Your task to perform on an android device: read, delete, or share a saved page in the chrome app Image 0: 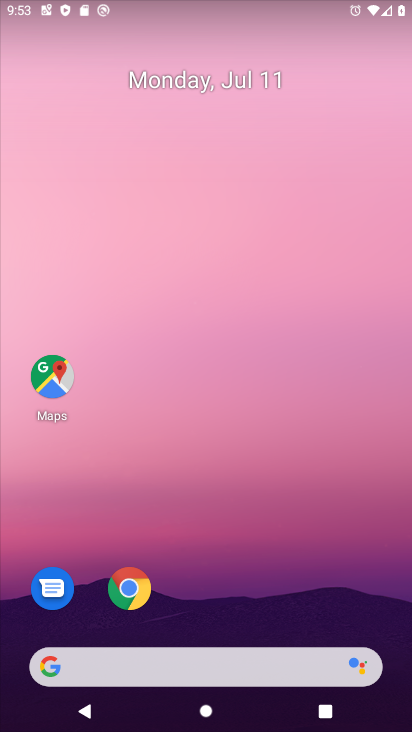
Step 0: click (122, 580)
Your task to perform on an android device: read, delete, or share a saved page in the chrome app Image 1: 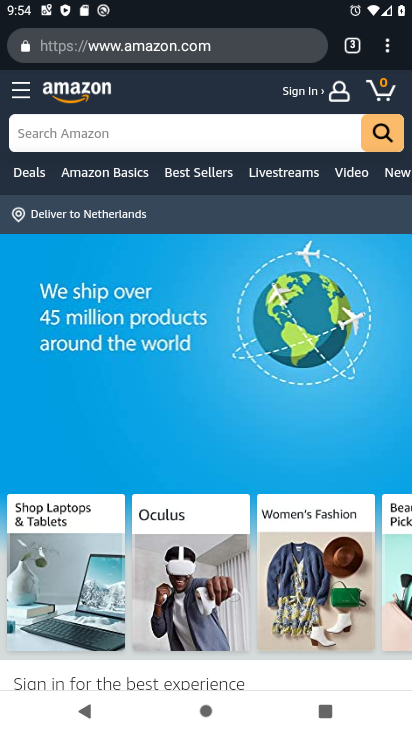
Step 1: drag from (385, 41) to (227, 291)
Your task to perform on an android device: read, delete, or share a saved page in the chrome app Image 2: 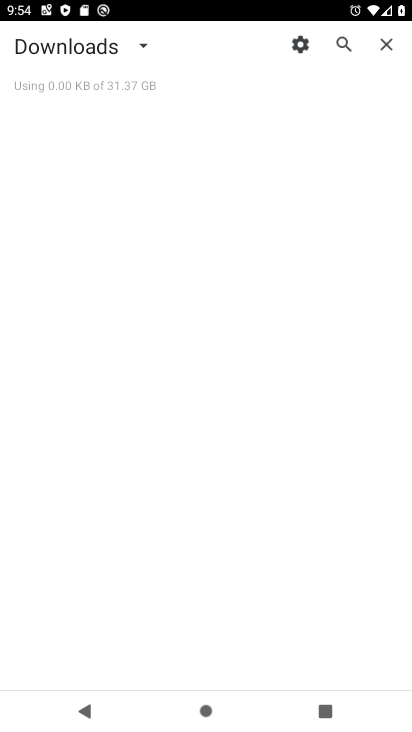
Step 2: click (140, 45)
Your task to perform on an android device: read, delete, or share a saved page in the chrome app Image 3: 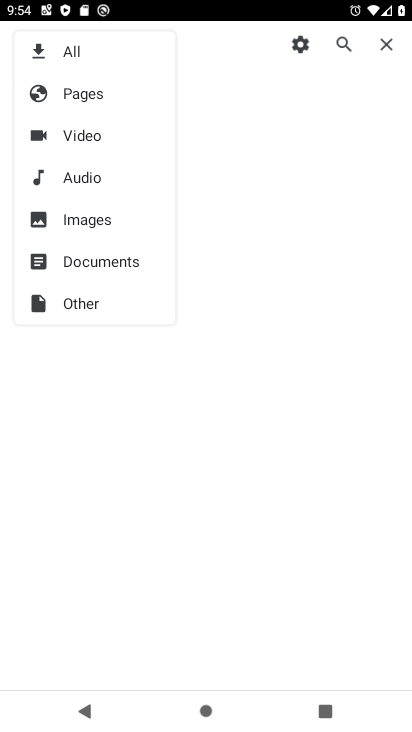
Step 3: click (94, 103)
Your task to perform on an android device: read, delete, or share a saved page in the chrome app Image 4: 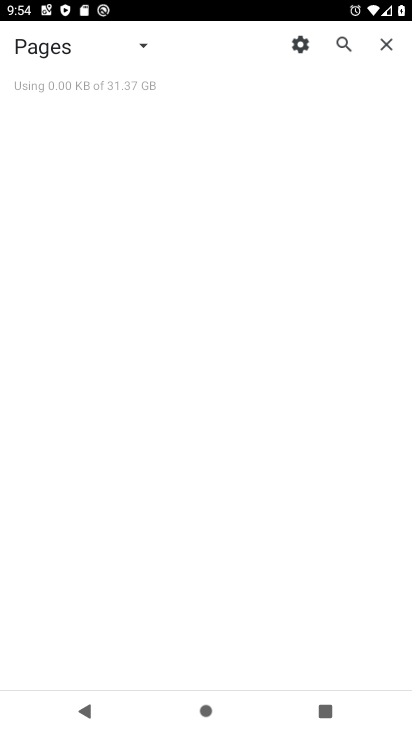
Step 4: task complete